Your task to perform on an android device: add a contact in the contacts app Image 0: 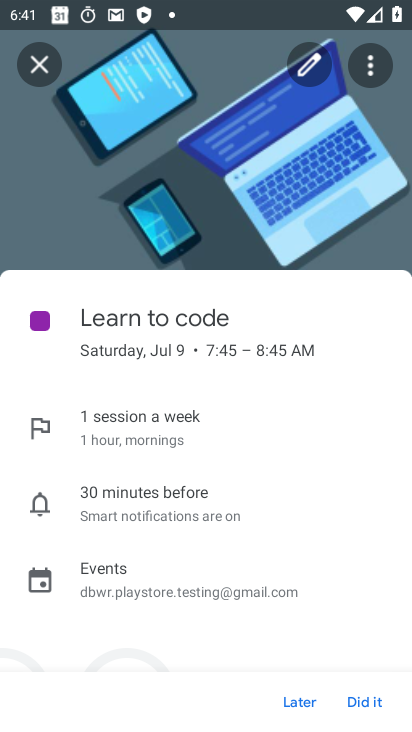
Step 0: press home button
Your task to perform on an android device: add a contact in the contacts app Image 1: 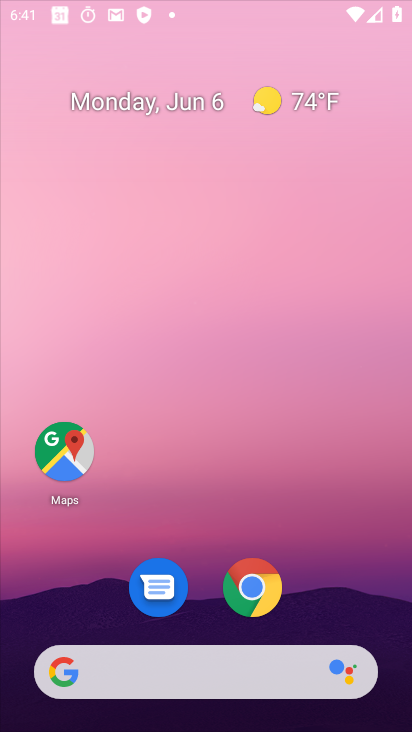
Step 1: drag from (389, 567) to (285, 33)
Your task to perform on an android device: add a contact in the contacts app Image 2: 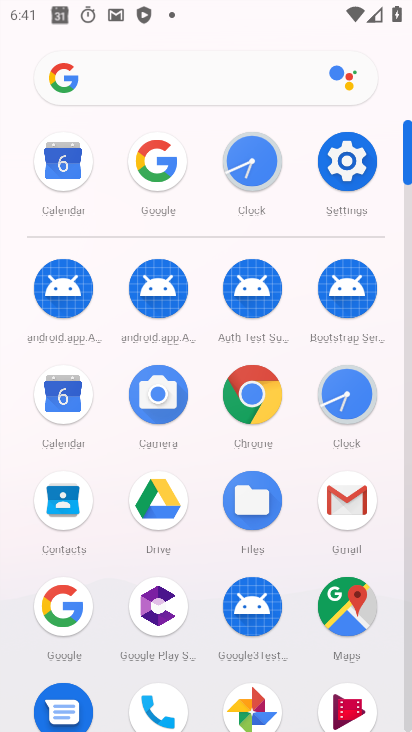
Step 2: click (64, 486)
Your task to perform on an android device: add a contact in the contacts app Image 3: 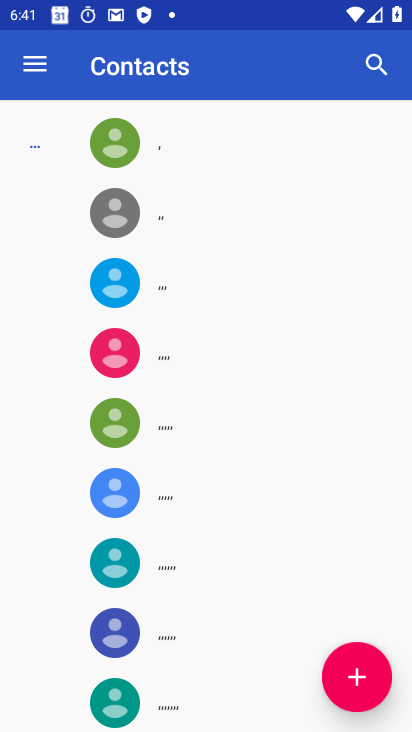
Step 3: click (386, 666)
Your task to perform on an android device: add a contact in the contacts app Image 4: 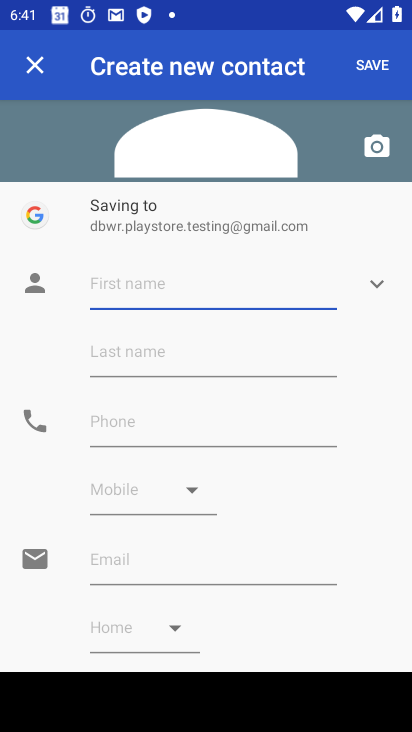
Step 4: type "Sallu"
Your task to perform on an android device: add a contact in the contacts app Image 5: 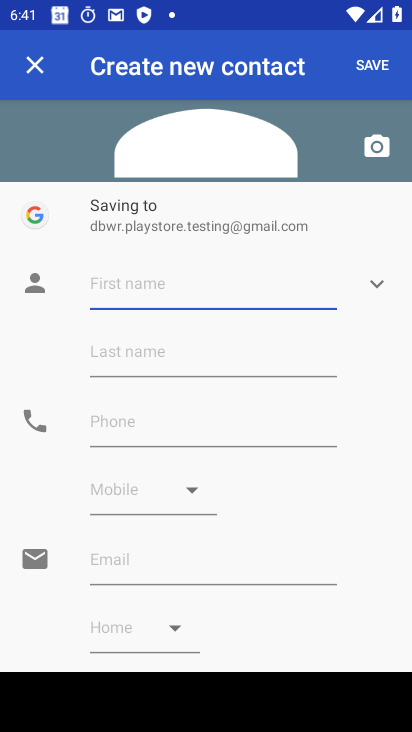
Step 5: click (379, 67)
Your task to perform on an android device: add a contact in the contacts app Image 6: 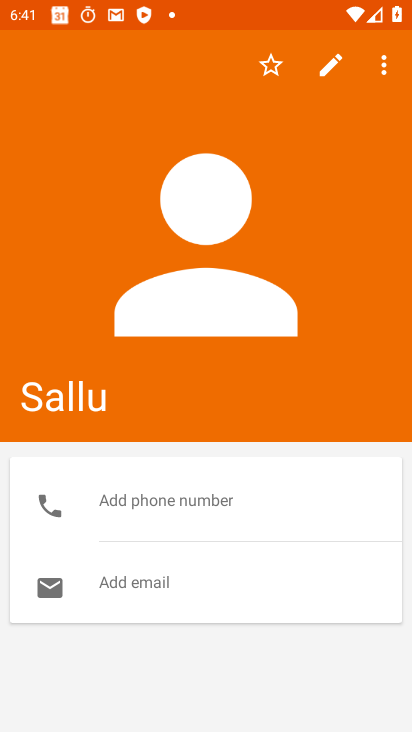
Step 6: task complete